Your task to perform on an android device: Open Chrome and go to the settings page Image 0: 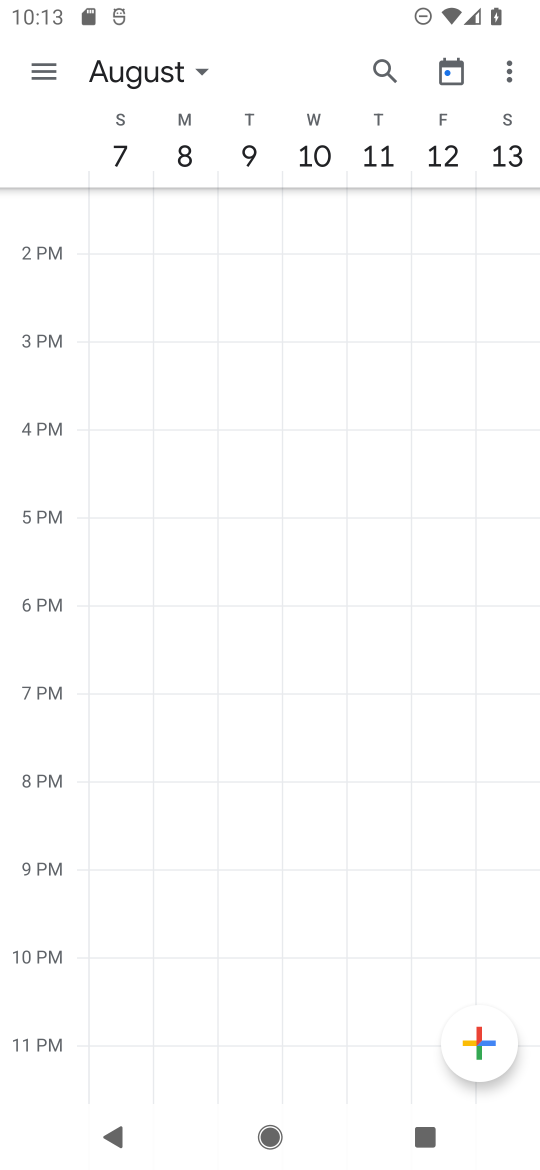
Step 0: press home button
Your task to perform on an android device: Open Chrome and go to the settings page Image 1: 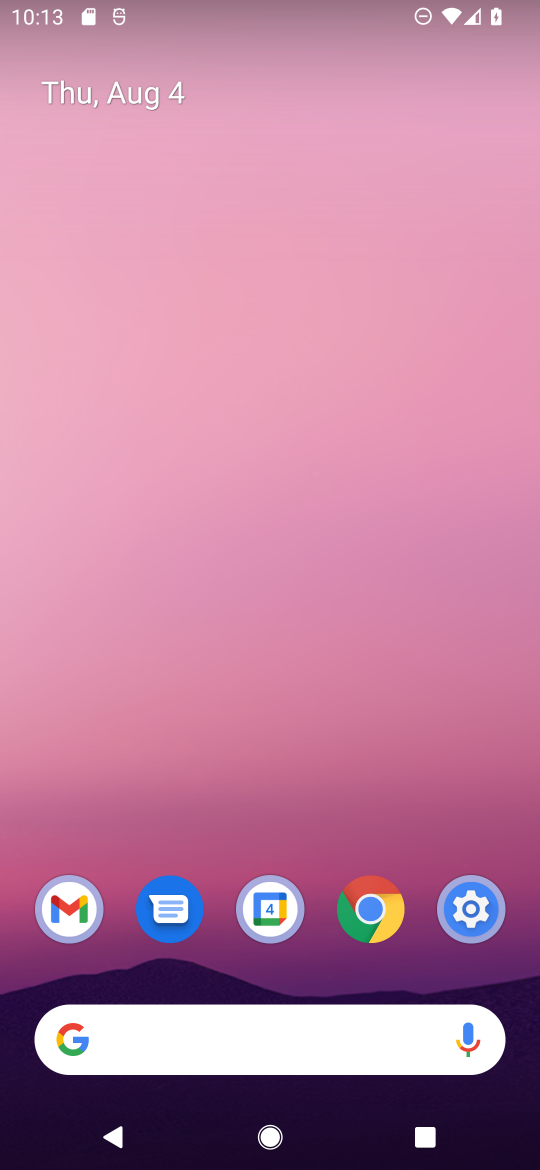
Step 1: click (372, 907)
Your task to perform on an android device: Open Chrome and go to the settings page Image 2: 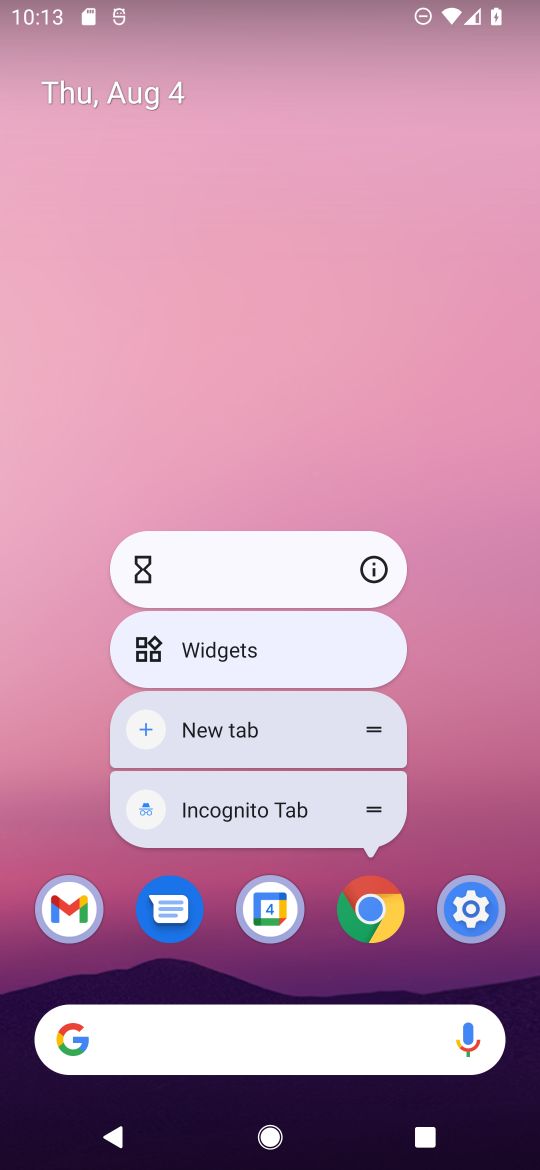
Step 2: click (372, 907)
Your task to perform on an android device: Open Chrome and go to the settings page Image 3: 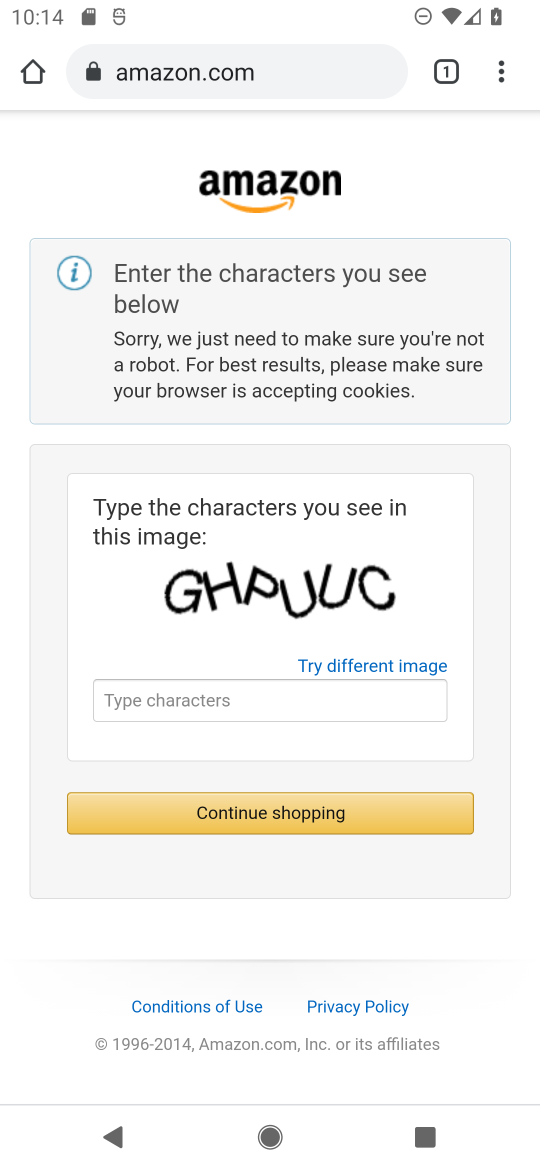
Step 3: task complete